Your task to perform on an android device: What does the iPhone 8 look like? Image 0: 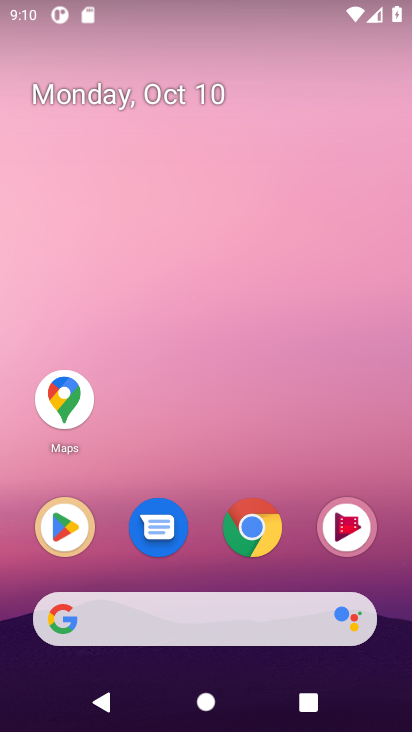
Step 0: click (251, 539)
Your task to perform on an android device: What does the iPhone 8 look like? Image 1: 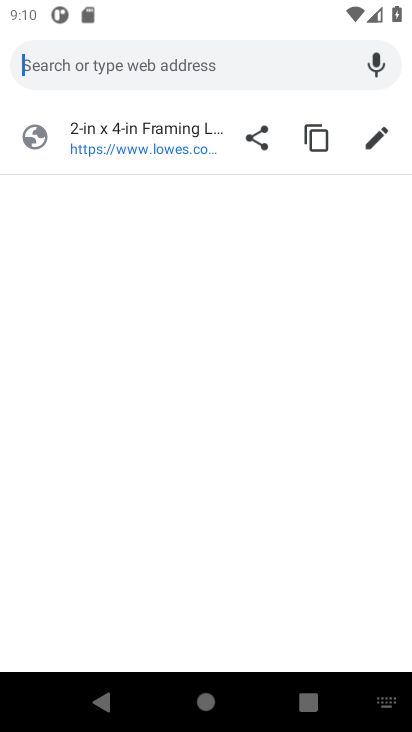
Step 1: click (257, 75)
Your task to perform on an android device: What does the iPhone 8 look like? Image 2: 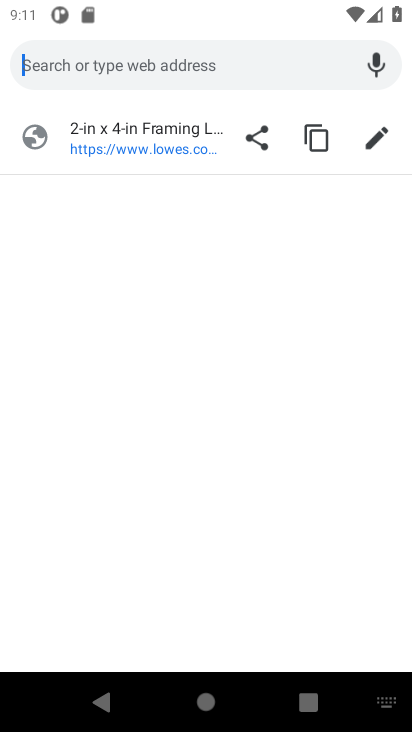
Step 2: type "What does the iPhone 8 look like?"
Your task to perform on an android device: What does the iPhone 8 look like? Image 3: 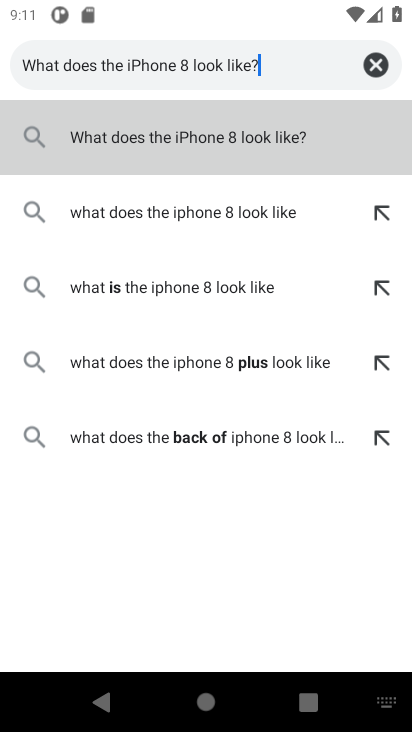
Step 3: press enter
Your task to perform on an android device: What does the iPhone 8 look like? Image 4: 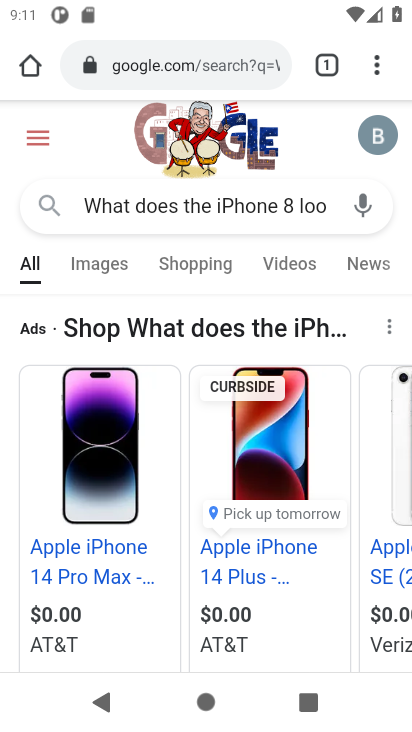
Step 4: click (149, 561)
Your task to perform on an android device: What does the iPhone 8 look like? Image 5: 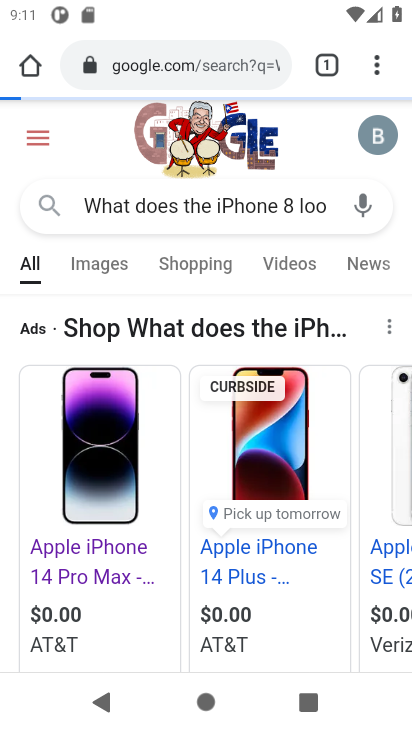
Step 5: drag from (129, 483) to (149, 328)
Your task to perform on an android device: What does the iPhone 8 look like? Image 6: 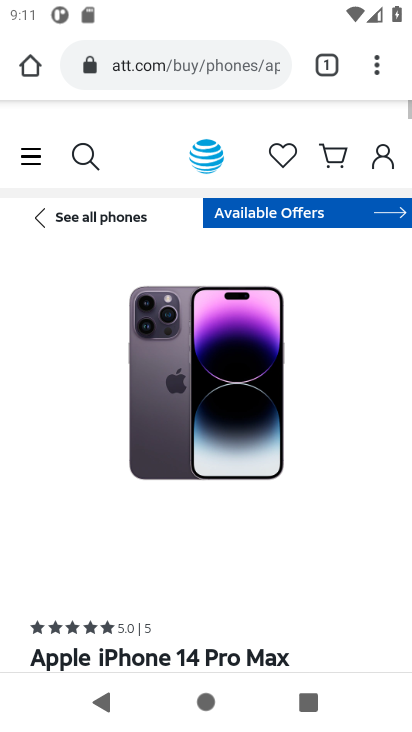
Step 6: drag from (158, 596) to (143, 221)
Your task to perform on an android device: What does the iPhone 8 look like? Image 7: 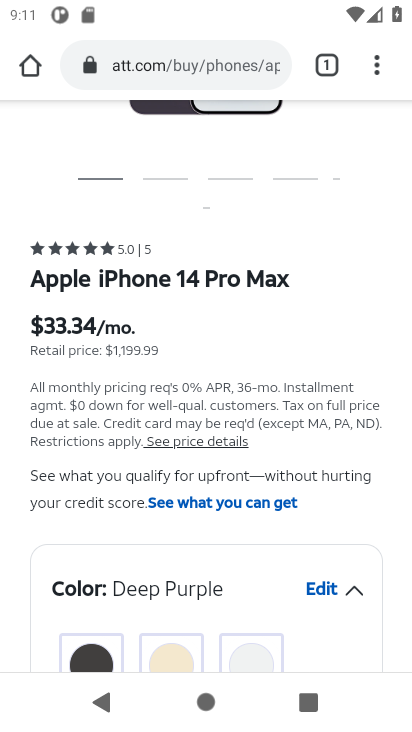
Step 7: drag from (139, 239) to (150, 105)
Your task to perform on an android device: What does the iPhone 8 look like? Image 8: 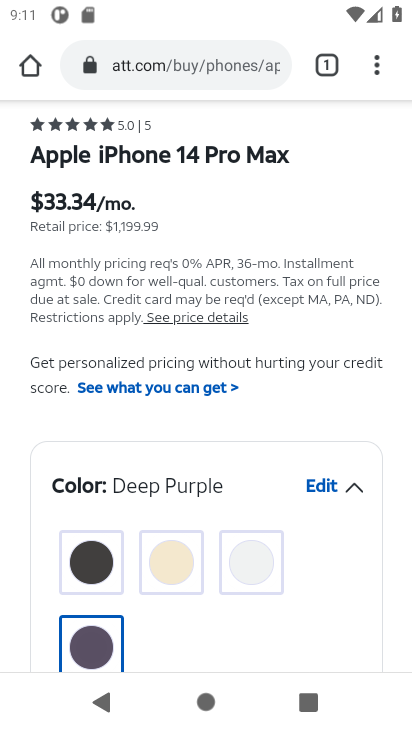
Step 8: drag from (161, 480) to (147, 262)
Your task to perform on an android device: What does the iPhone 8 look like? Image 9: 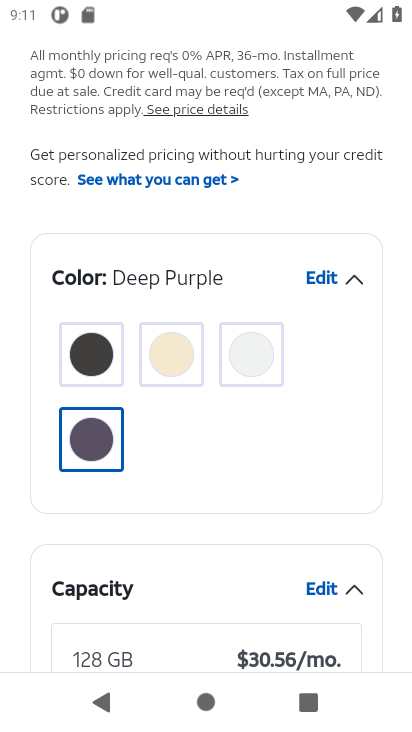
Step 9: drag from (189, 299) to (180, 210)
Your task to perform on an android device: What does the iPhone 8 look like? Image 10: 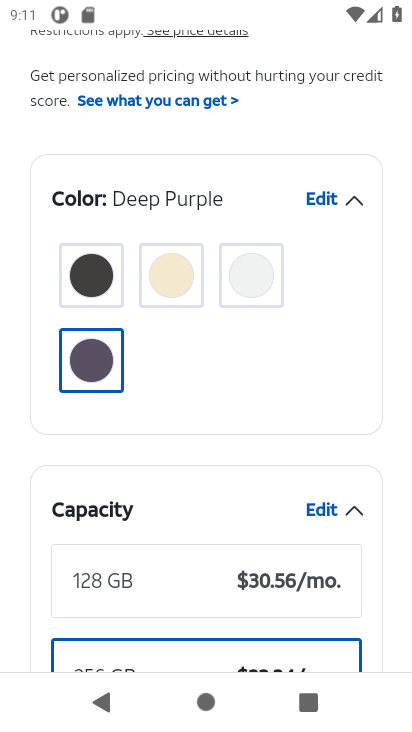
Step 10: click (219, 214)
Your task to perform on an android device: What does the iPhone 8 look like? Image 11: 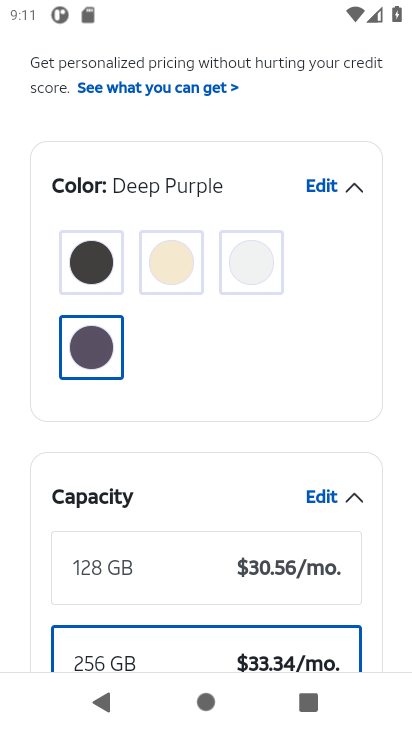
Step 11: drag from (235, 265) to (235, 185)
Your task to perform on an android device: What does the iPhone 8 look like? Image 12: 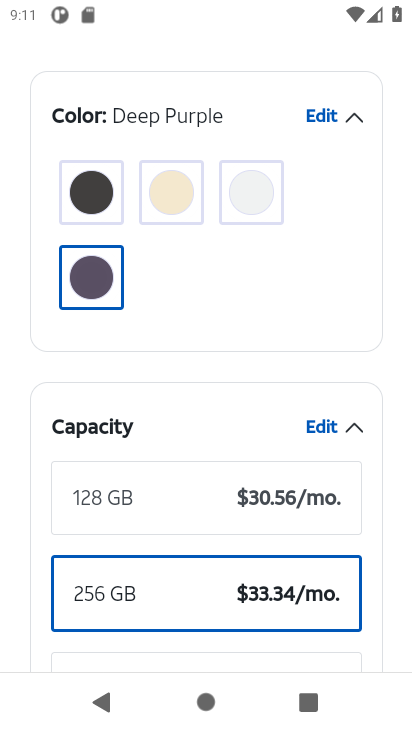
Step 12: drag from (211, 415) to (210, 245)
Your task to perform on an android device: What does the iPhone 8 look like? Image 13: 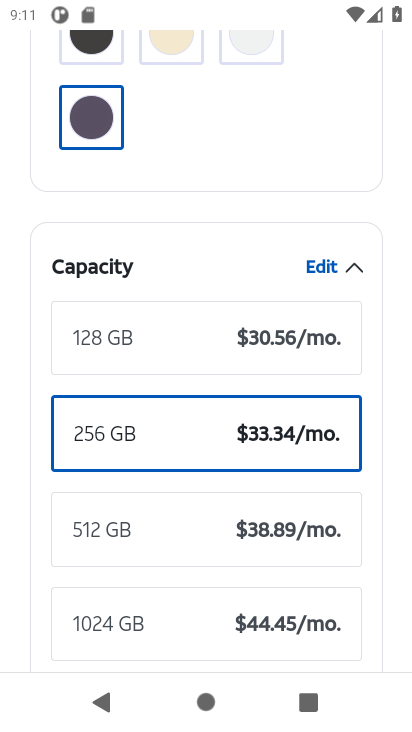
Step 13: drag from (198, 537) to (183, 307)
Your task to perform on an android device: What does the iPhone 8 look like? Image 14: 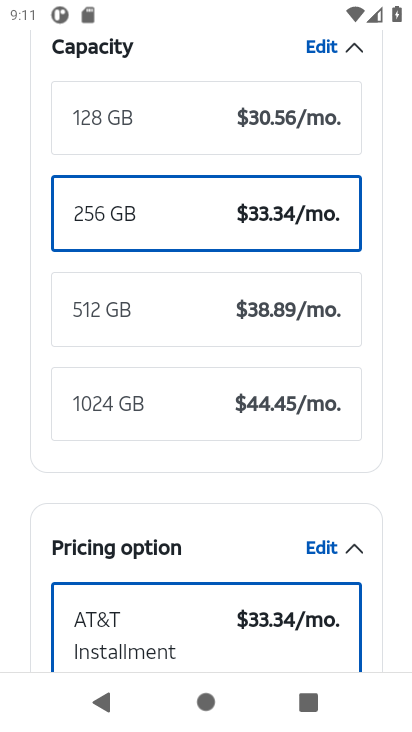
Step 14: drag from (187, 361) to (180, 273)
Your task to perform on an android device: What does the iPhone 8 look like? Image 15: 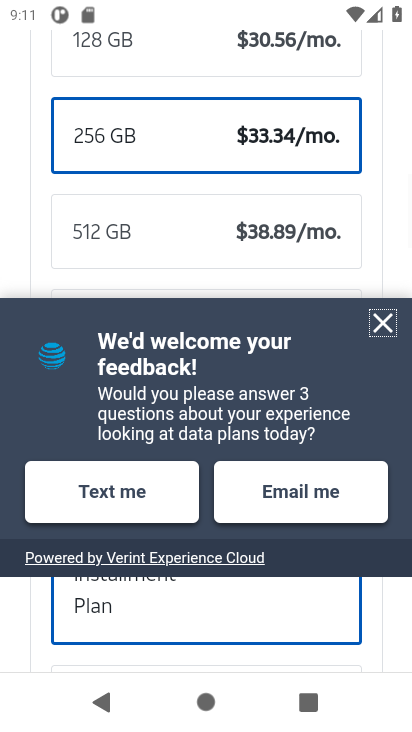
Step 15: drag from (201, 410) to (197, 269)
Your task to perform on an android device: What does the iPhone 8 look like? Image 16: 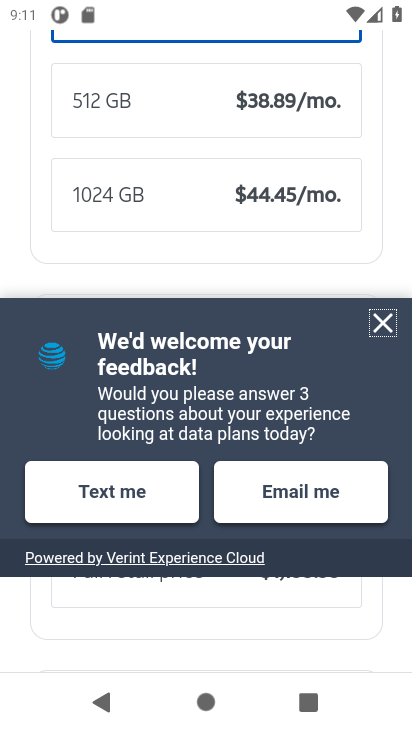
Step 16: click (394, 319)
Your task to perform on an android device: What does the iPhone 8 look like? Image 17: 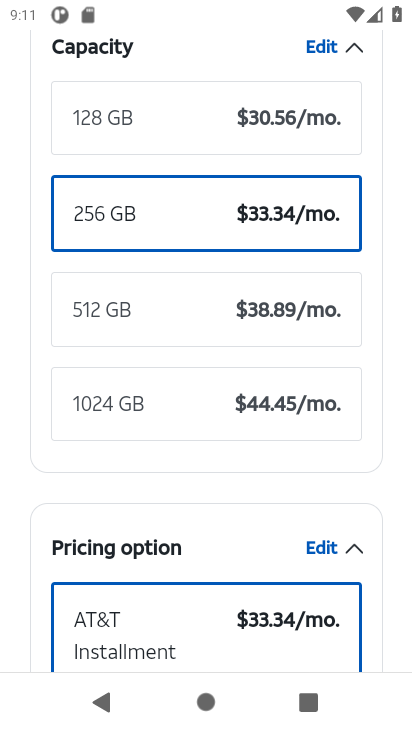
Step 17: press back button
Your task to perform on an android device: What does the iPhone 8 look like? Image 18: 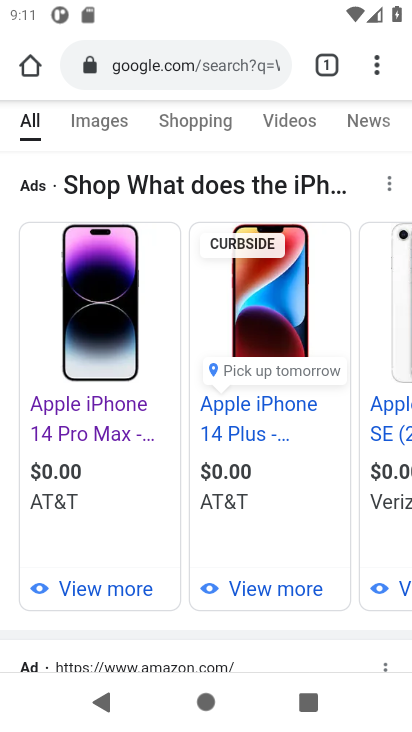
Step 18: drag from (147, 637) to (113, 25)
Your task to perform on an android device: What does the iPhone 8 look like? Image 19: 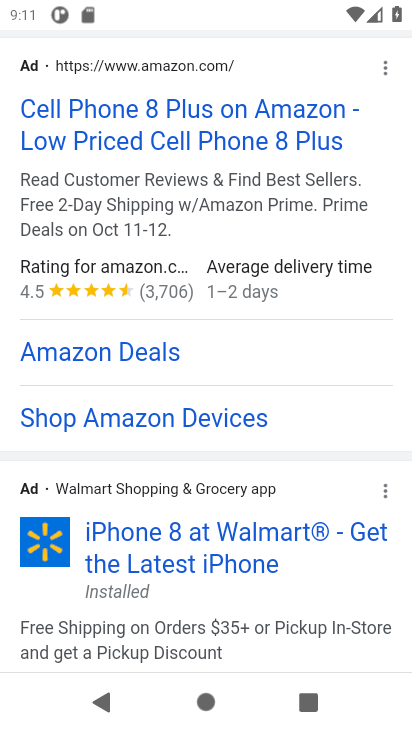
Step 19: click (118, 147)
Your task to perform on an android device: What does the iPhone 8 look like? Image 20: 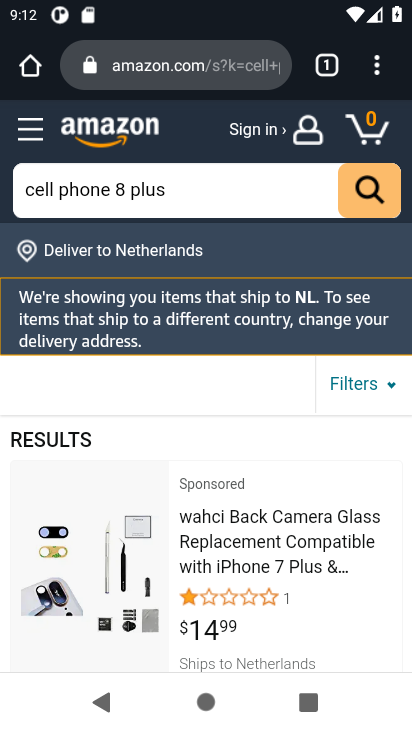
Step 20: drag from (212, 262) to (213, 156)
Your task to perform on an android device: What does the iPhone 8 look like? Image 21: 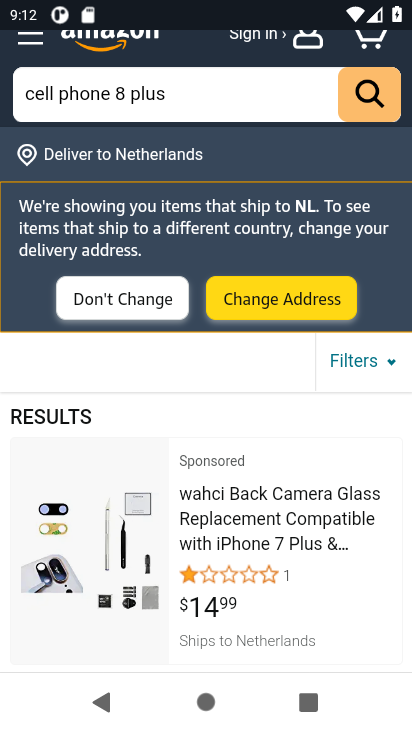
Step 21: drag from (68, 486) to (151, 266)
Your task to perform on an android device: What does the iPhone 8 look like? Image 22: 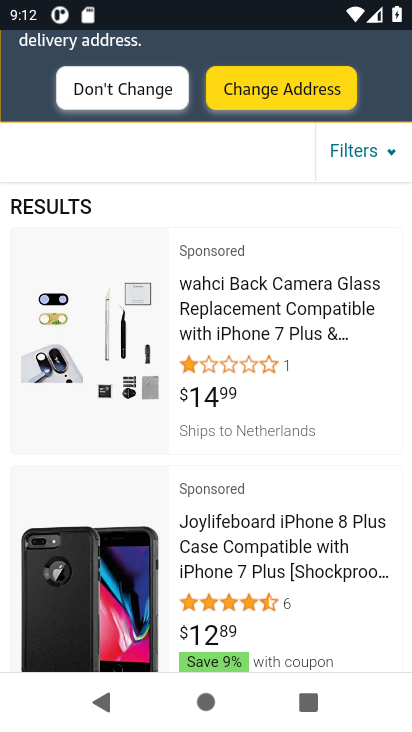
Step 22: drag from (208, 521) to (228, 303)
Your task to perform on an android device: What does the iPhone 8 look like? Image 23: 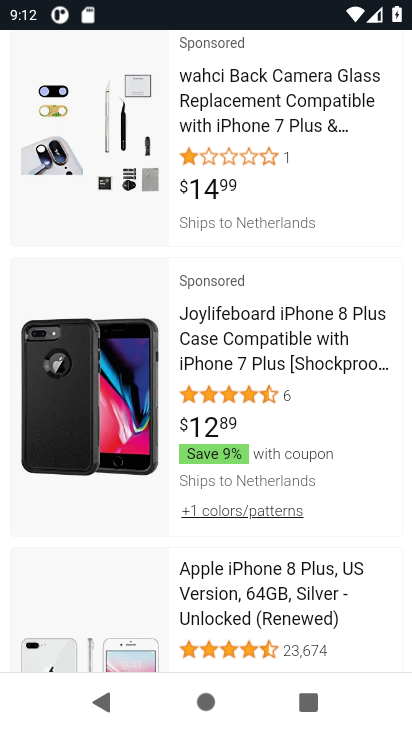
Step 23: press back button
Your task to perform on an android device: What does the iPhone 8 look like? Image 24: 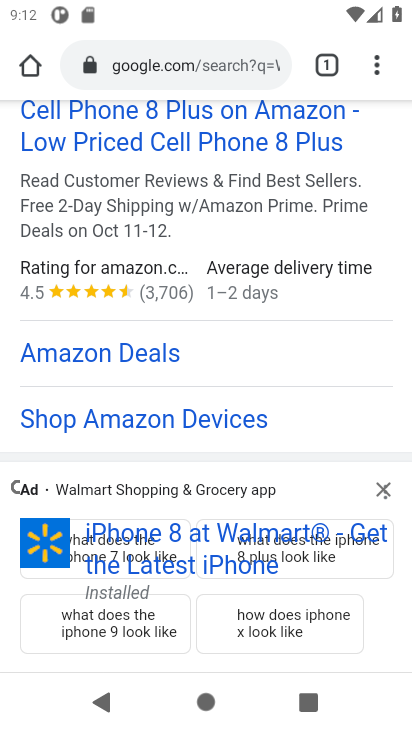
Step 24: drag from (268, 594) to (246, 255)
Your task to perform on an android device: What does the iPhone 8 look like? Image 25: 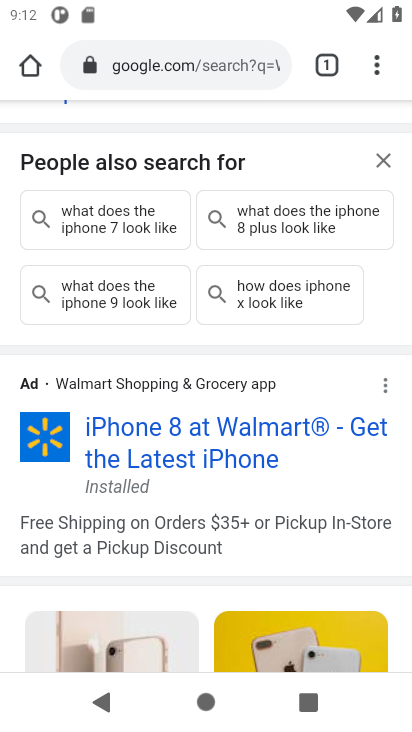
Step 25: click (214, 442)
Your task to perform on an android device: What does the iPhone 8 look like? Image 26: 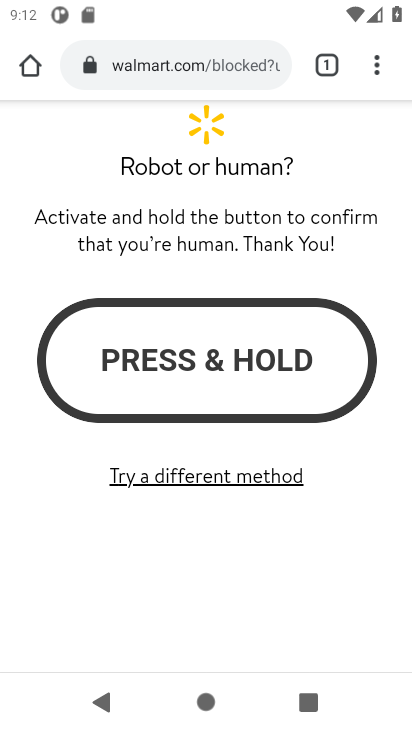
Step 26: drag from (259, 577) to (248, 213)
Your task to perform on an android device: What does the iPhone 8 look like? Image 27: 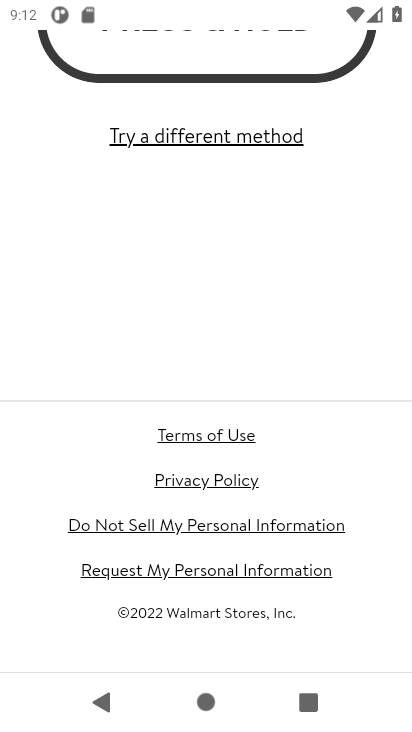
Step 27: drag from (217, 433) to (222, 235)
Your task to perform on an android device: What does the iPhone 8 look like? Image 28: 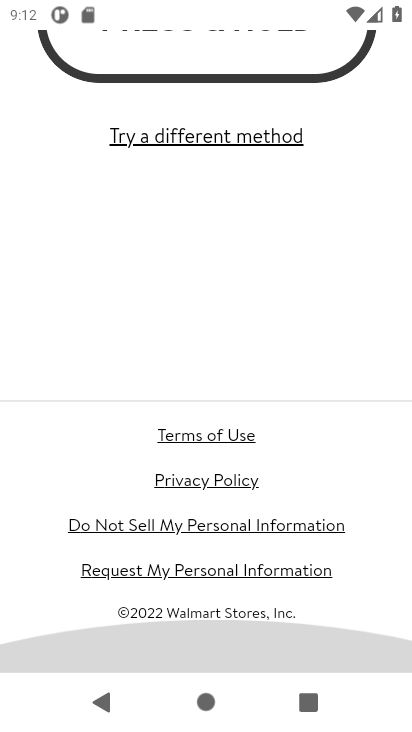
Step 28: drag from (231, 211) to (274, 721)
Your task to perform on an android device: What does the iPhone 8 look like? Image 29: 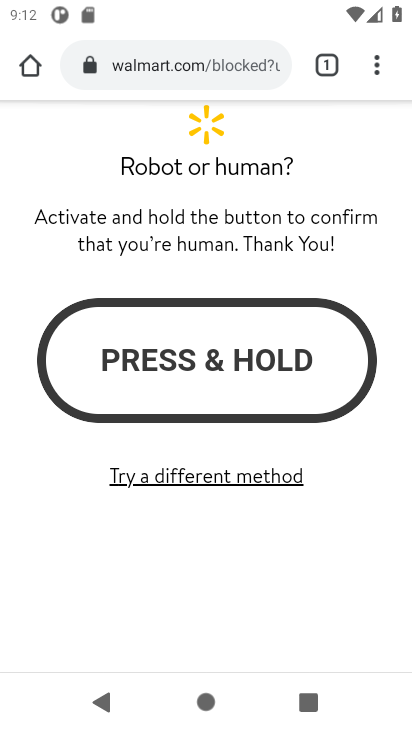
Step 29: drag from (260, 263) to (275, 444)
Your task to perform on an android device: What does the iPhone 8 look like? Image 30: 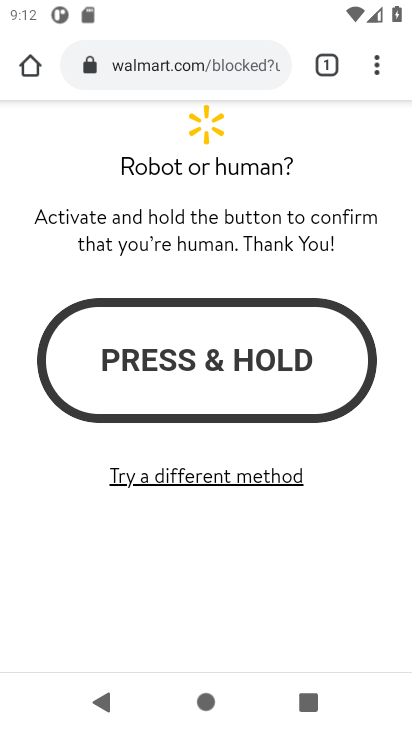
Step 30: click (176, 398)
Your task to perform on an android device: What does the iPhone 8 look like? Image 31: 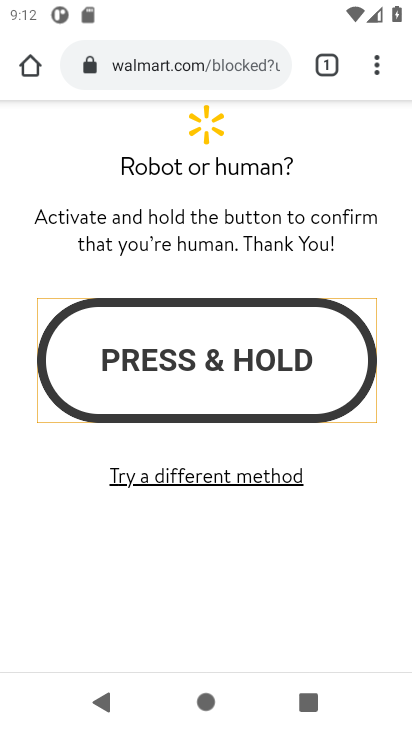
Step 31: click (179, 368)
Your task to perform on an android device: What does the iPhone 8 look like? Image 32: 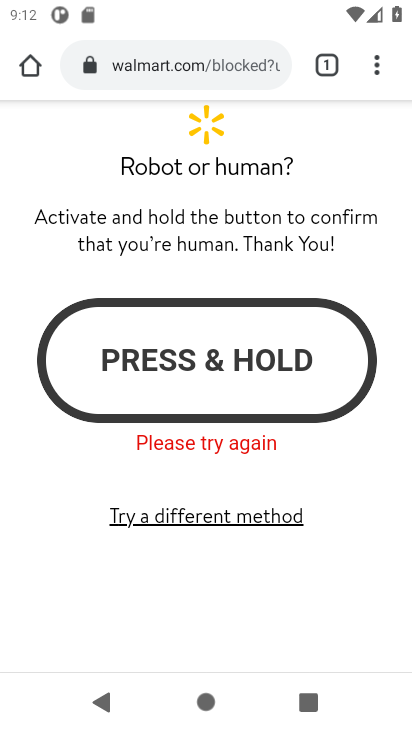
Step 32: press back button
Your task to perform on an android device: What does the iPhone 8 look like? Image 33: 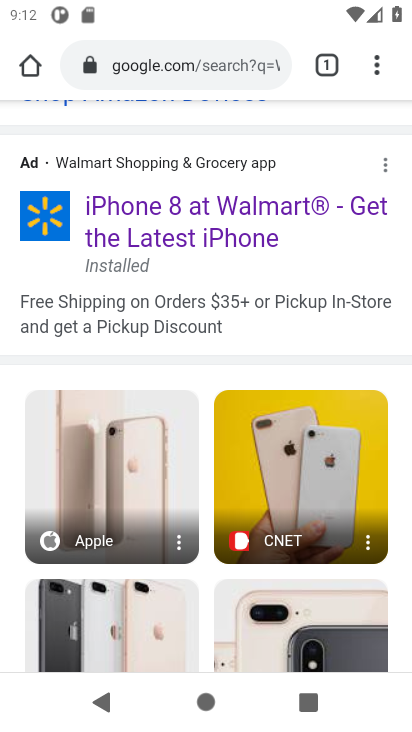
Step 33: click (154, 472)
Your task to perform on an android device: What does the iPhone 8 look like? Image 34: 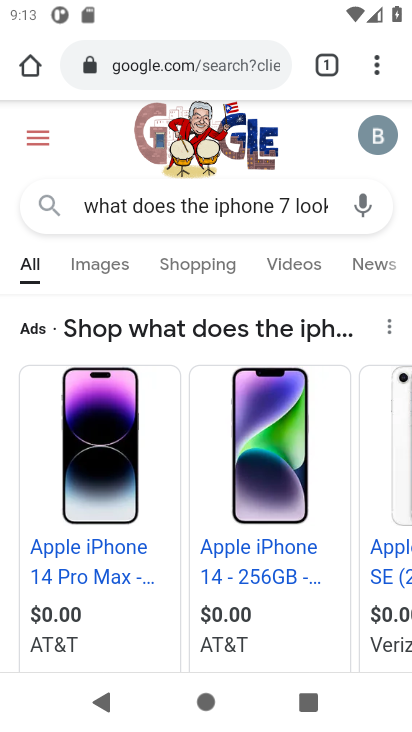
Step 34: task complete